Your task to perform on an android device: toggle sleep mode Image 0: 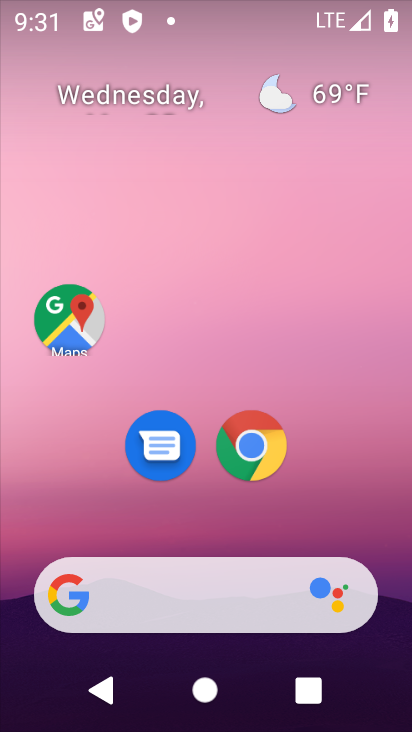
Step 0: drag from (313, 498) to (264, 128)
Your task to perform on an android device: toggle sleep mode Image 1: 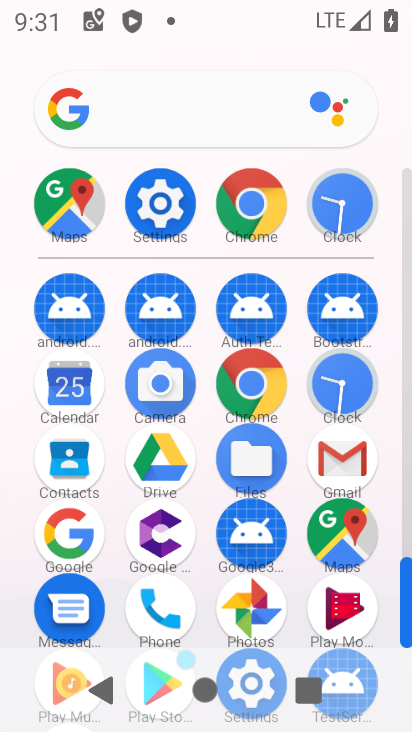
Step 1: click (165, 199)
Your task to perform on an android device: toggle sleep mode Image 2: 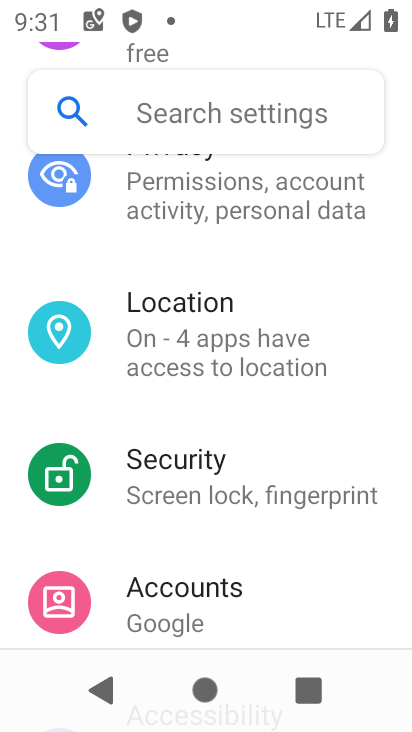
Step 2: drag from (266, 240) to (280, 561)
Your task to perform on an android device: toggle sleep mode Image 3: 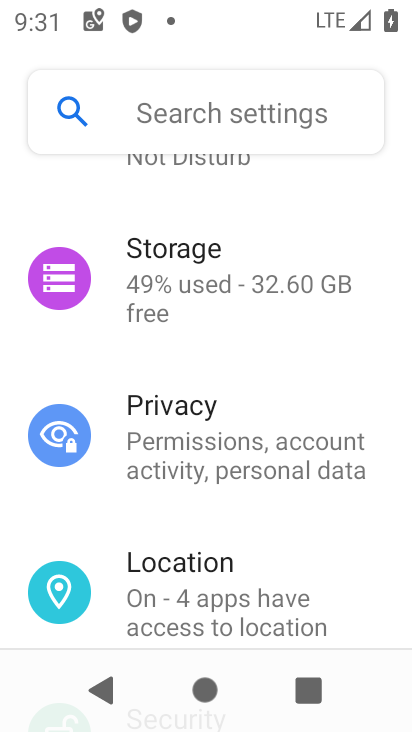
Step 3: drag from (154, 208) to (216, 538)
Your task to perform on an android device: toggle sleep mode Image 4: 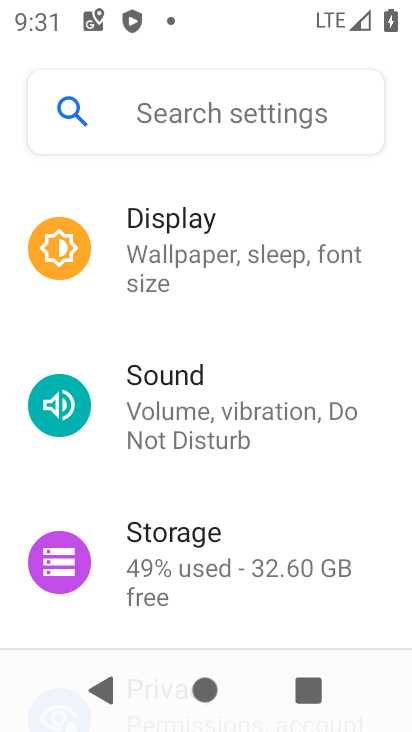
Step 4: click (187, 236)
Your task to perform on an android device: toggle sleep mode Image 5: 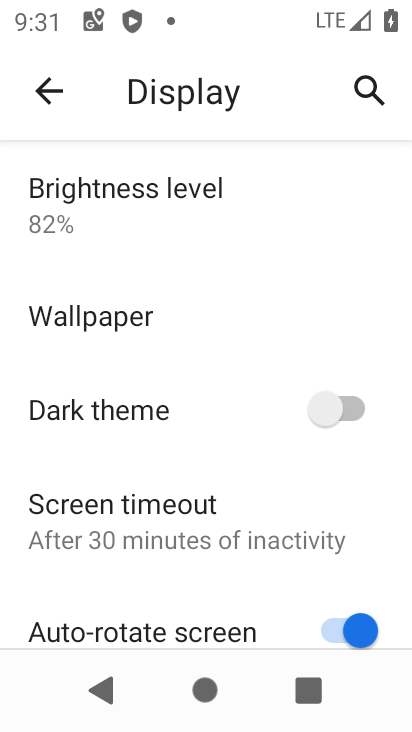
Step 5: click (196, 530)
Your task to perform on an android device: toggle sleep mode Image 6: 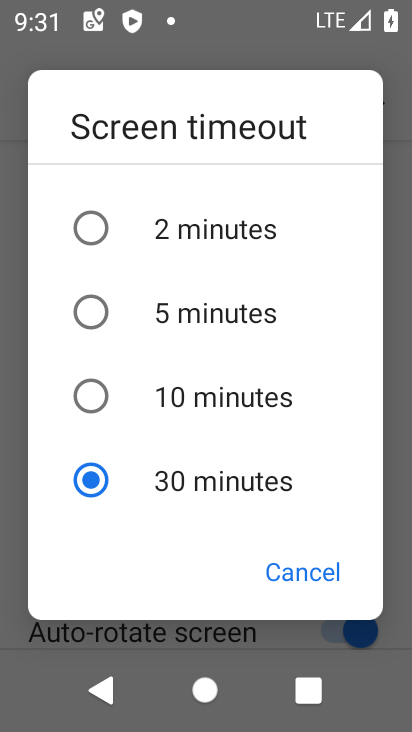
Step 6: click (163, 389)
Your task to perform on an android device: toggle sleep mode Image 7: 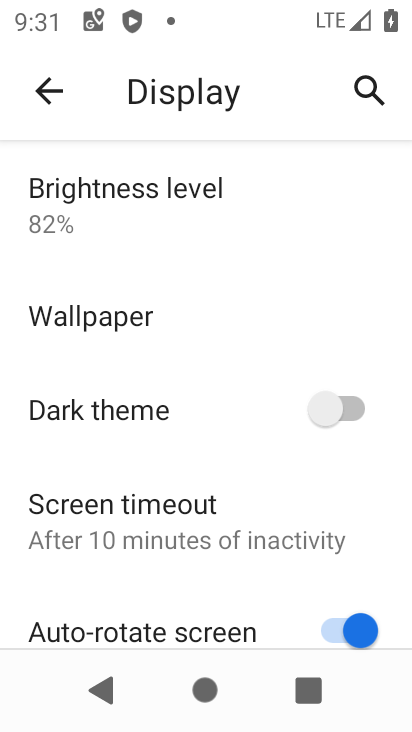
Step 7: task complete